Your task to perform on an android device: Go to notification settings Image 0: 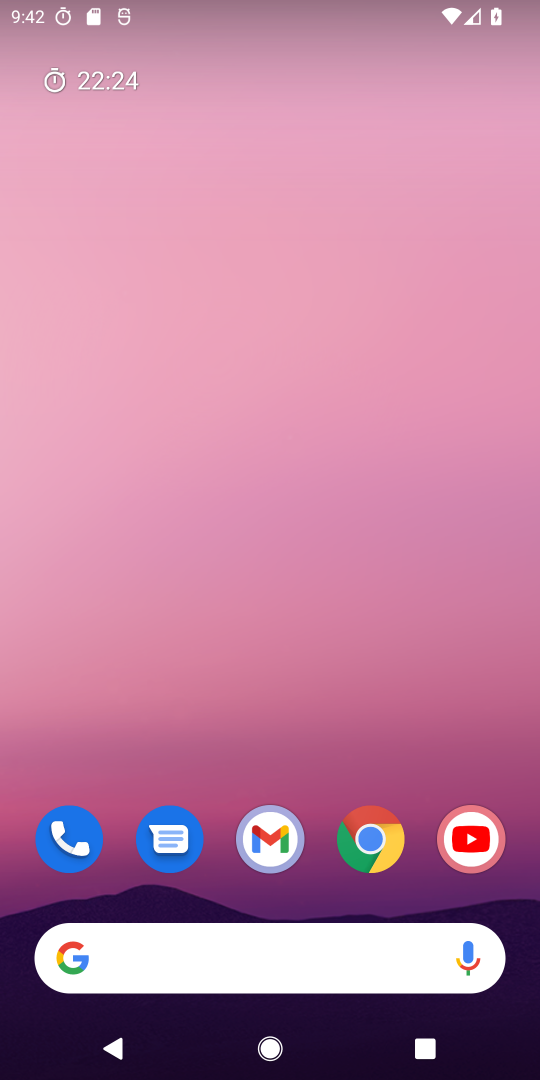
Step 0: press home button
Your task to perform on an android device: Go to notification settings Image 1: 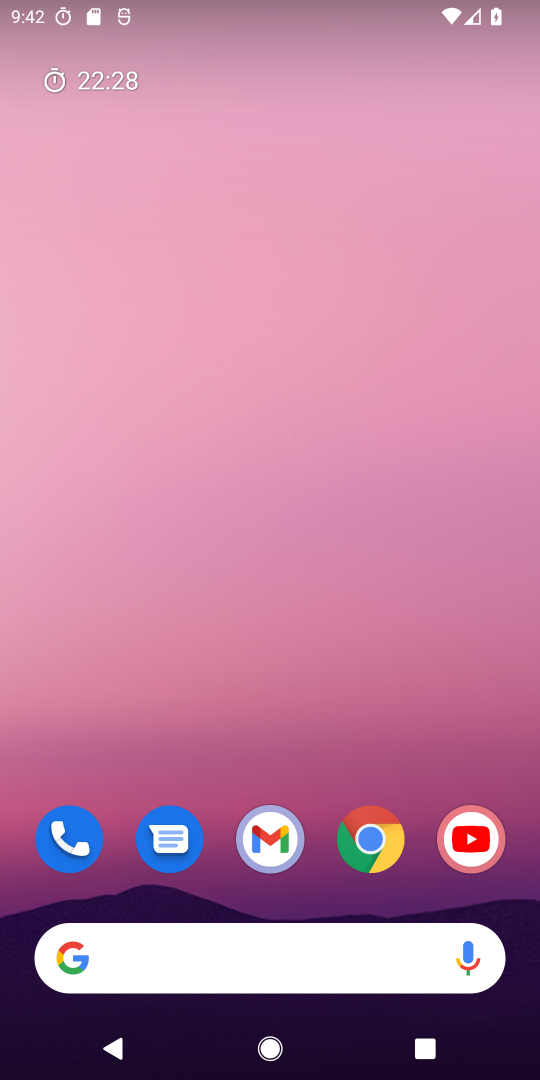
Step 1: drag from (320, 887) to (363, 250)
Your task to perform on an android device: Go to notification settings Image 2: 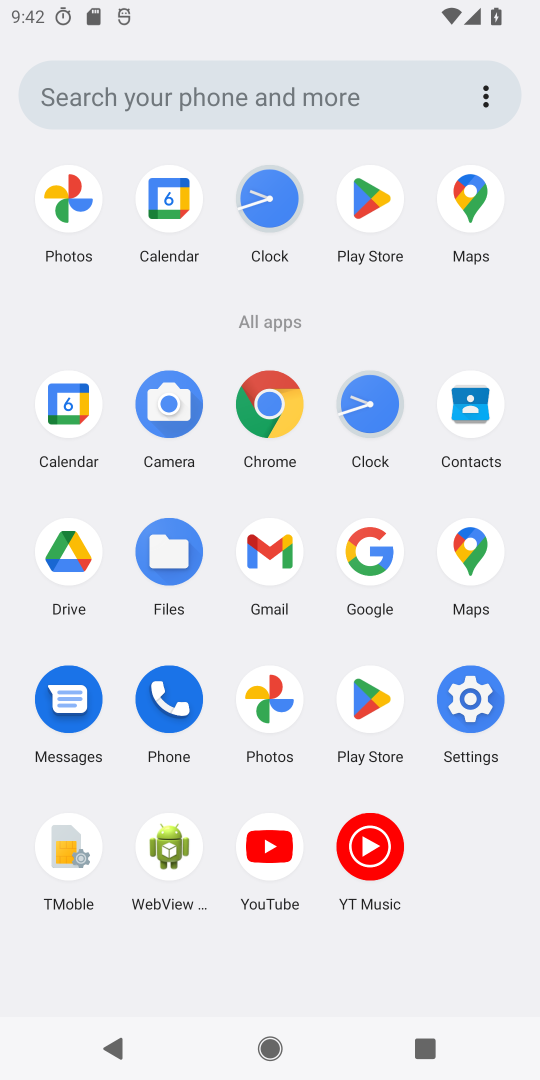
Step 2: click (463, 695)
Your task to perform on an android device: Go to notification settings Image 3: 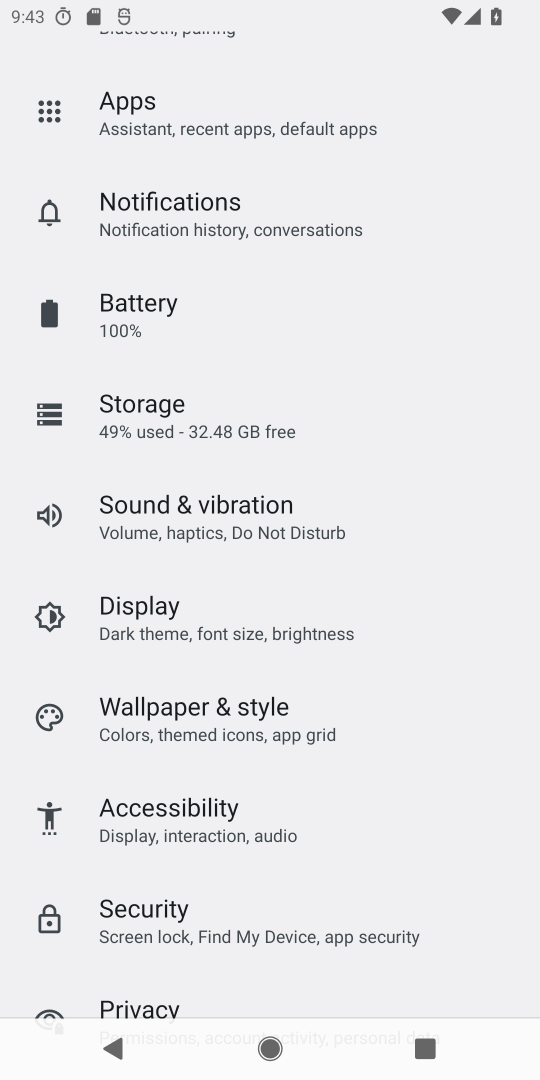
Step 3: click (189, 215)
Your task to perform on an android device: Go to notification settings Image 4: 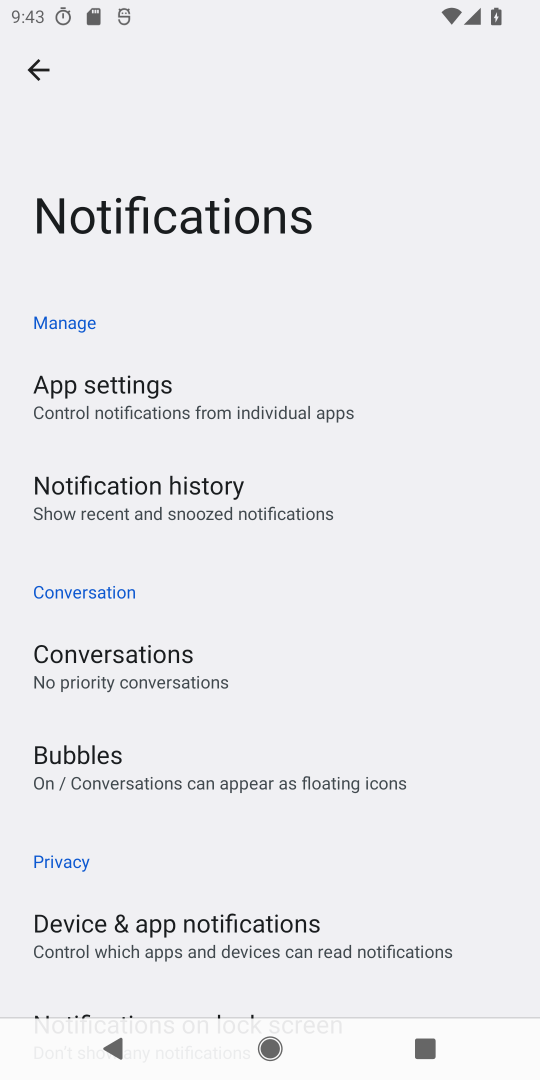
Step 4: task complete